Your task to perform on an android device: turn off picture-in-picture Image 0: 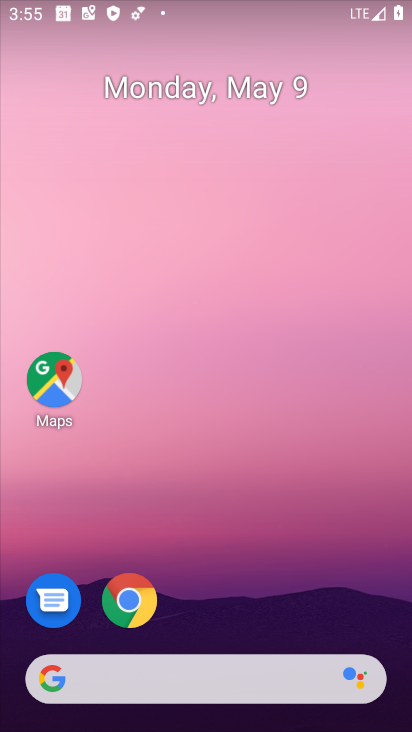
Step 0: drag from (256, 642) to (318, 37)
Your task to perform on an android device: turn off picture-in-picture Image 1: 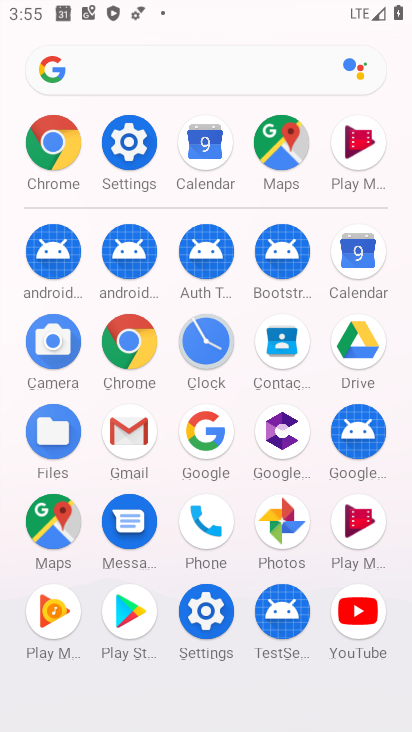
Step 1: click (137, 150)
Your task to perform on an android device: turn off picture-in-picture Image 2: 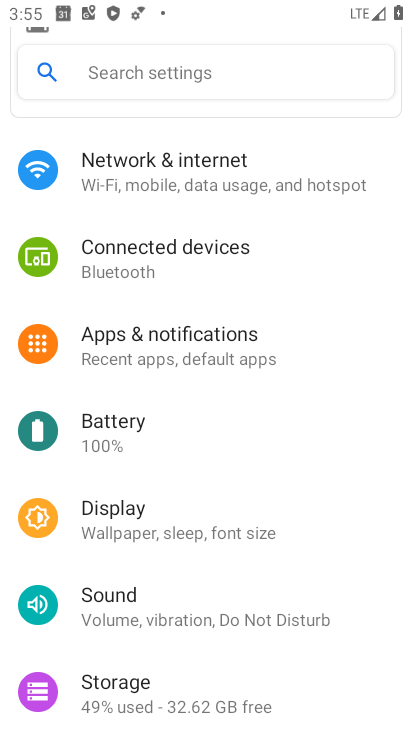
Step 2: click (205, 337)
Your task to perform on an android device: turn off picture-in-picture Image 3: 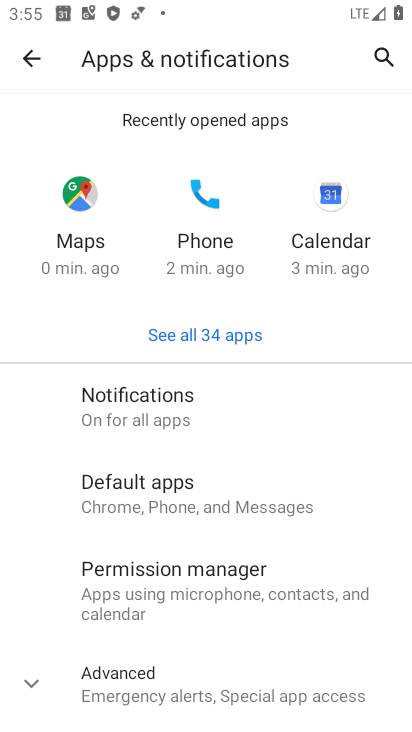
Step 3: click (258, 681)
Your task to perform on an android device: turn off picture-in-picture Image 4: 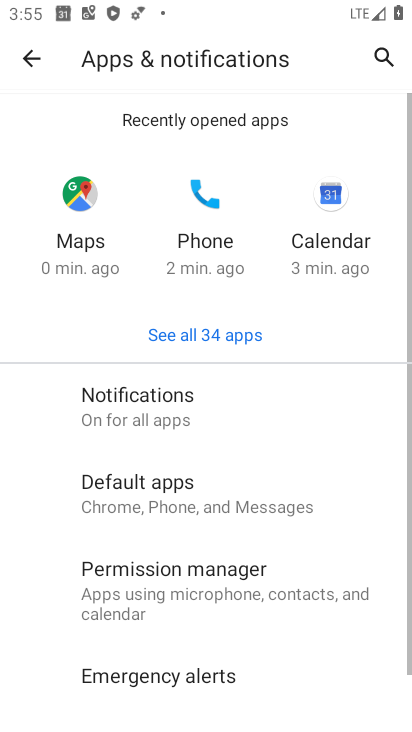
Step 4: drag from (260, 682) to (356, 61)
Your task to perform on an android device: turn off picture-in-picture Image 5: 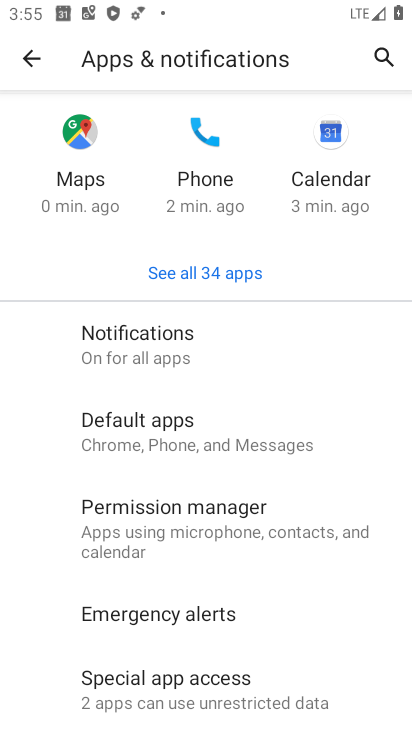
Step 5: click (267, 703)
Your task to perform on an android device: turn off picture-in-picture Image 6: 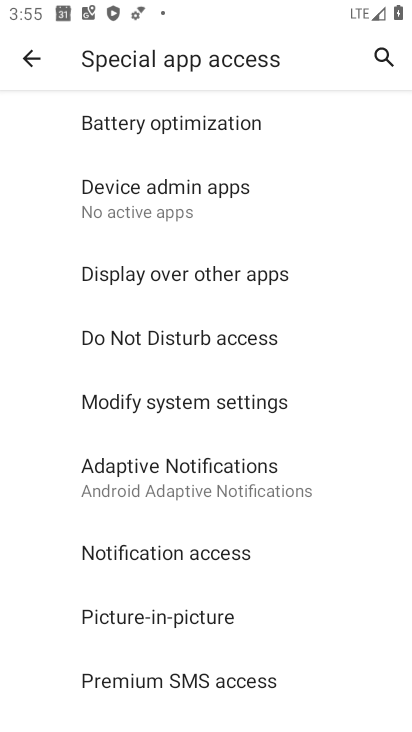
Step 6: click (226, 612)
Your task to perform on an android device: turn off picture-in-picture Image 7: 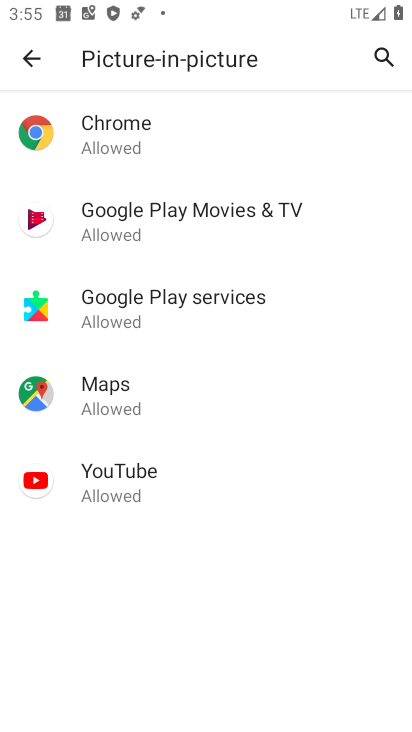
Step 7: click (275, 136)
Your task to perform on an android device: turn off picture-in-picture Image 8: 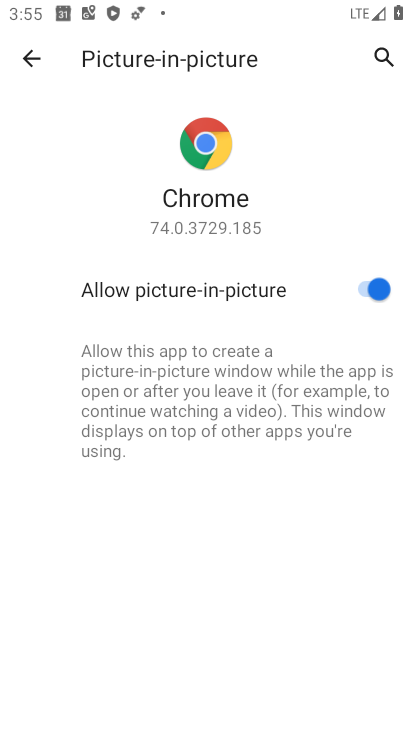
Step 8: click (359, 290)
Your task to perform on an android device: turn off picture-in-picture Image 9: 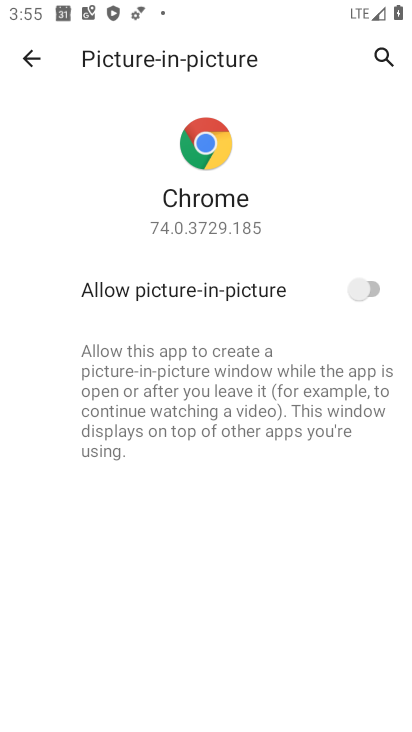
Step 9: press back button
Your task to perform on an android device: turn off picture-in-picture Image 10: 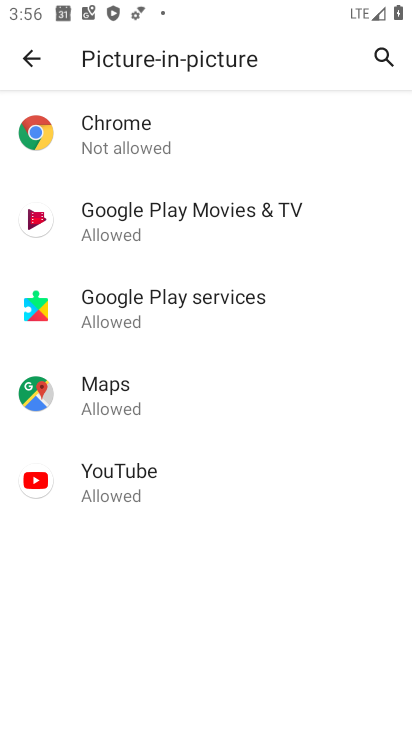
Step 10: click (241, 250)
Your task to perform on an android device: turn off picture-in-picture Image 11: 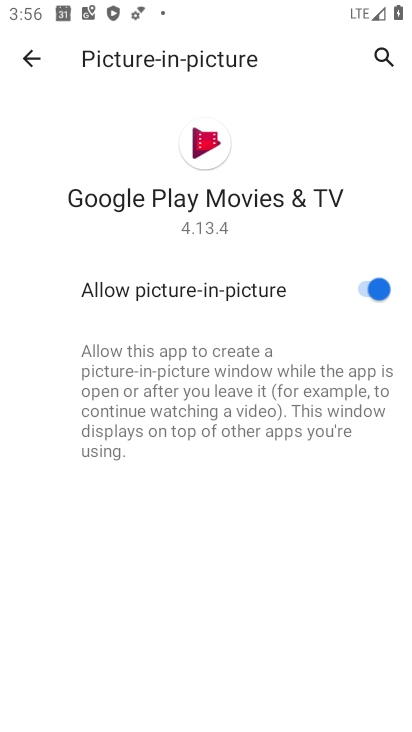
Step 11: click (372, 290)
Your task to perform on an android device: turn off picture-in-picture Image 12: 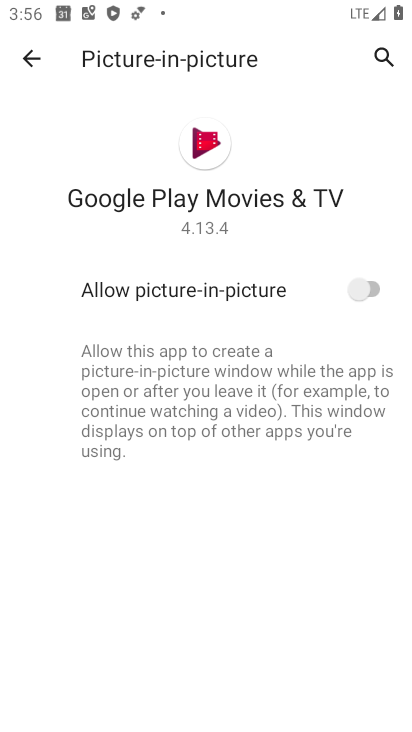
Step 12: press back button
Your task to perform on an android device: turn off picture-in-picture Image 13: 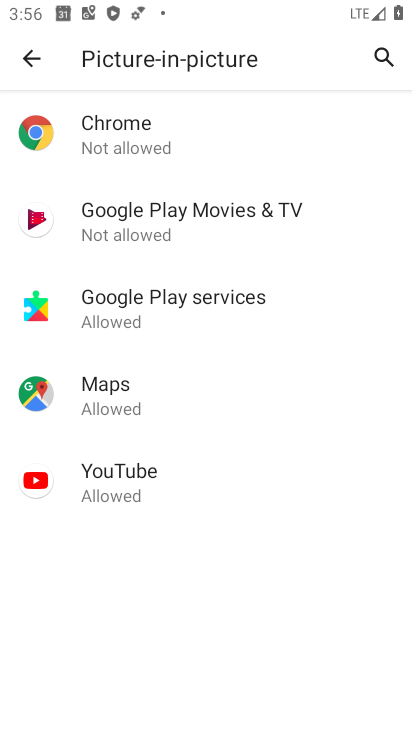
Step 13: click (211, 308)
Your task to perform on an android device: turn off picture-in-picture Image 14: 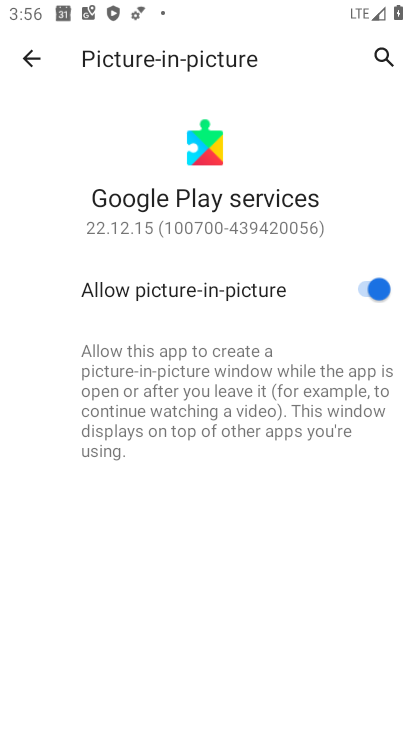
Step 14: click (362, 290)
Your task to perform on an android device: turn off picture-in-picture Image 15: 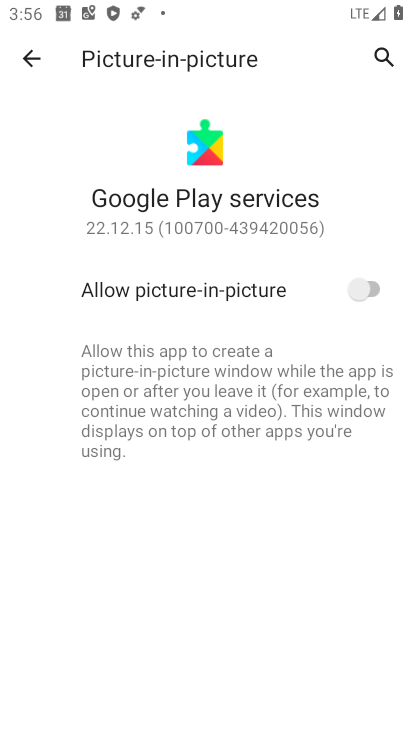
Step 15: press back button
Your task to perform on an android device: turn off picture-in-picture Image 16: 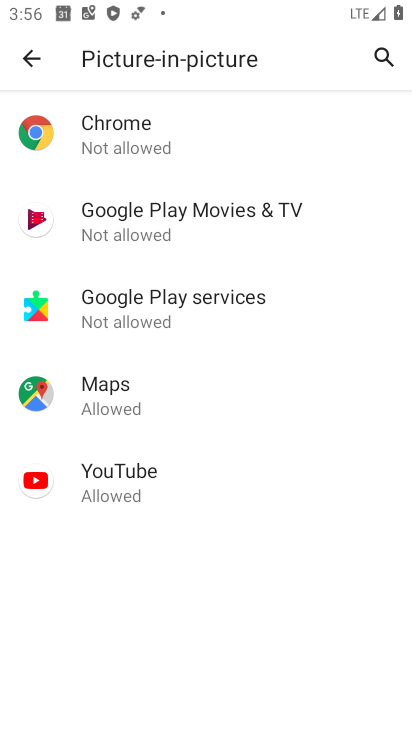
Step 16: click (170, 394)
Your task to perform on an android device: turn off picture-in-picture Image 17: 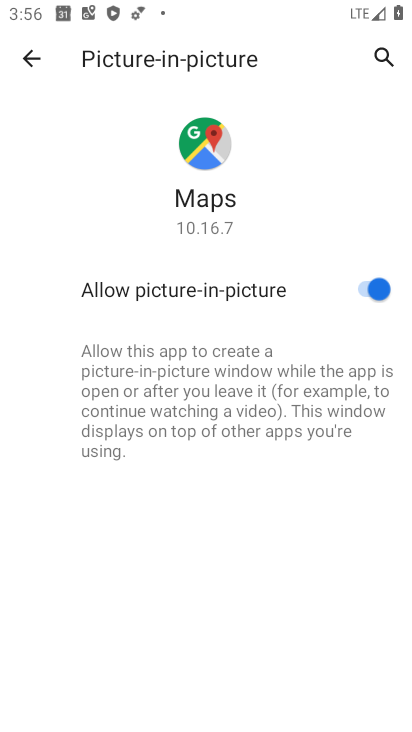
Step 17: click (362, 287)
Your task to perform on an android device: turn off picture-in-picture Image 18: 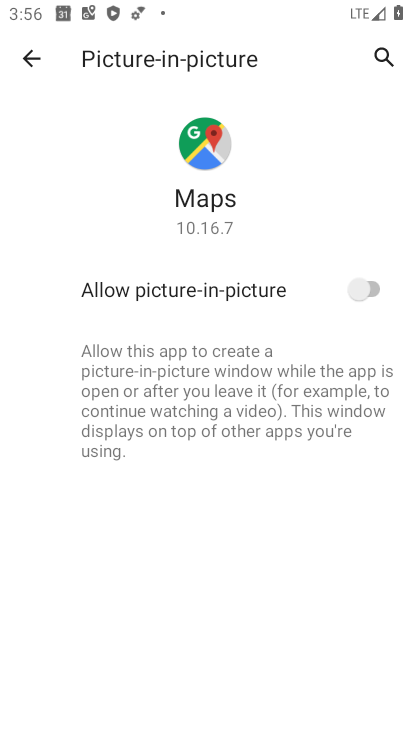
Step 18: press back button
Your task to perform on an android device: turn off picture-in-picture Image 19: 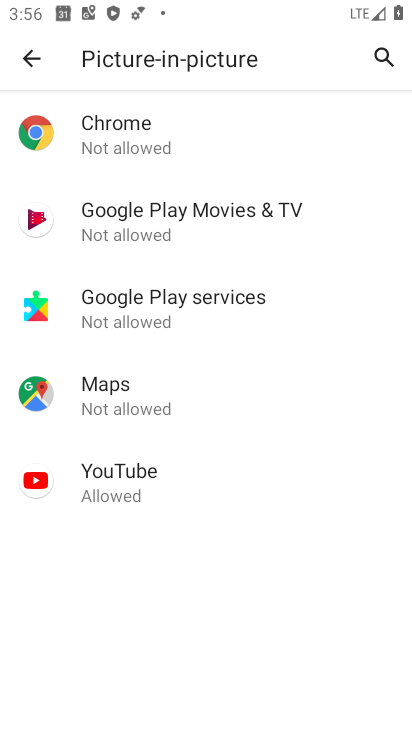
Step 19: click (188, 491)
Your task to perform on an android device: turn off picture-in-picture Image 20: 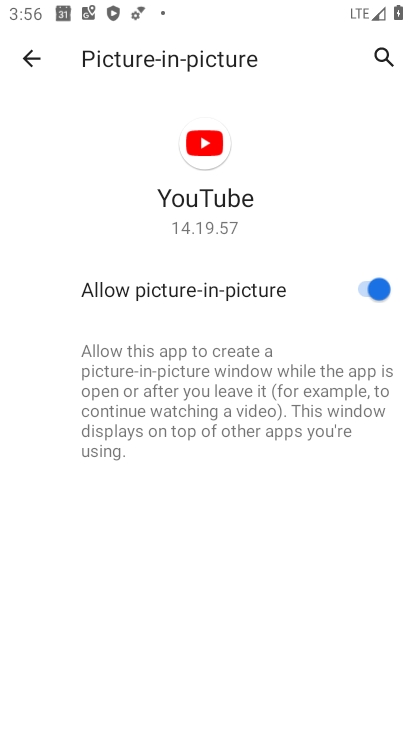
Step 20: click (366, 289)
Your task to perform on an android device: turn off picture-in-picture Image 21: 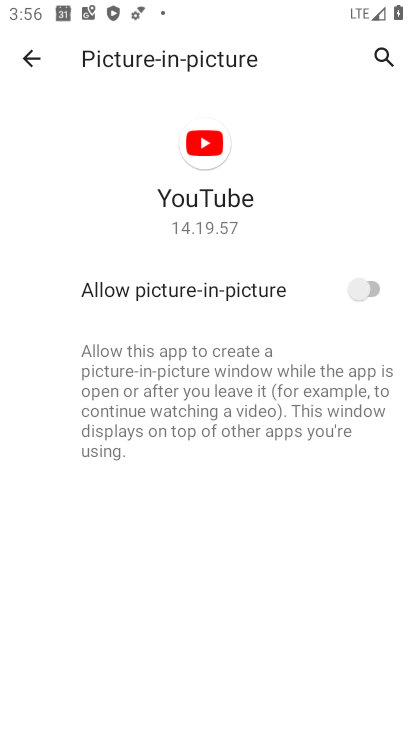
Step 21: task complete